Your task to perform on an android device: turn on airplane mode Image 0: 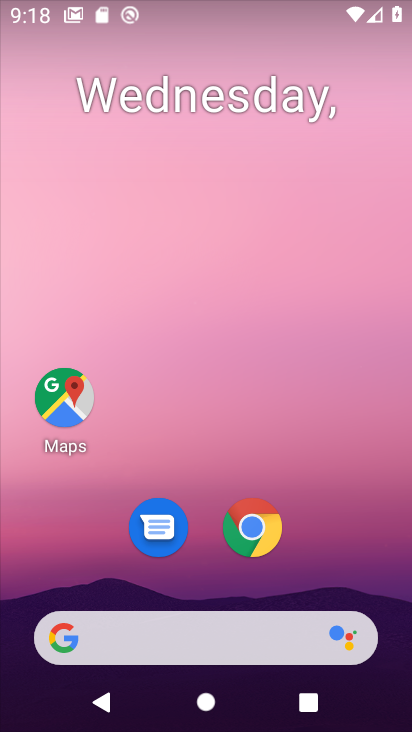
Step 0: press home button
Your task to perform on an android device: turn on airplane mode Image 1: 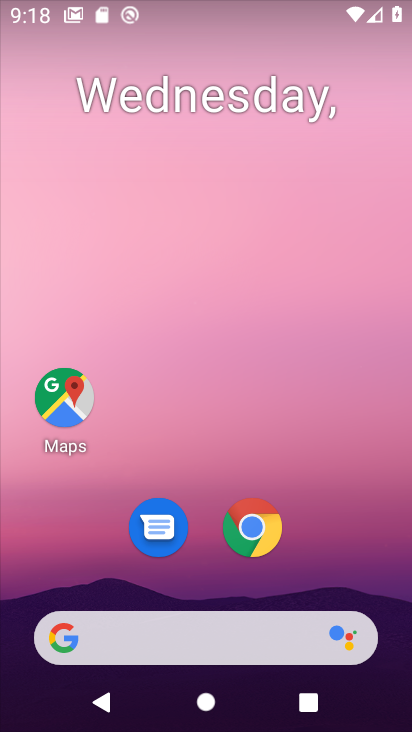
Step 1: drag from (236, 15) to (274, 537)
Your task to perform on an android device: turn on airplane mode Image 2: 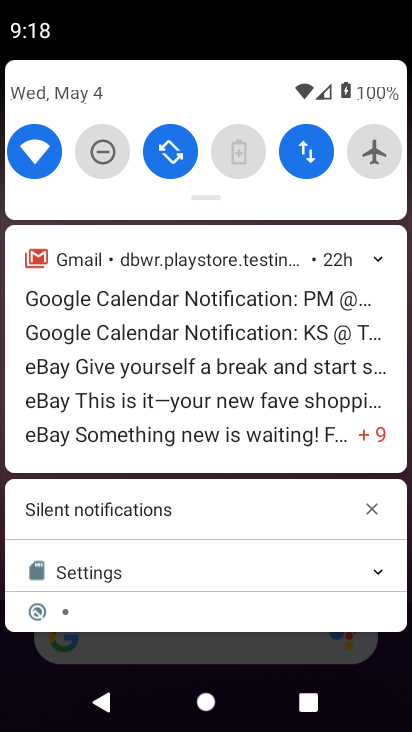
Step 2: drag from (215, 203) to (228, 701)
Your task to perform on an android device: turn on airplane mode Image 3: 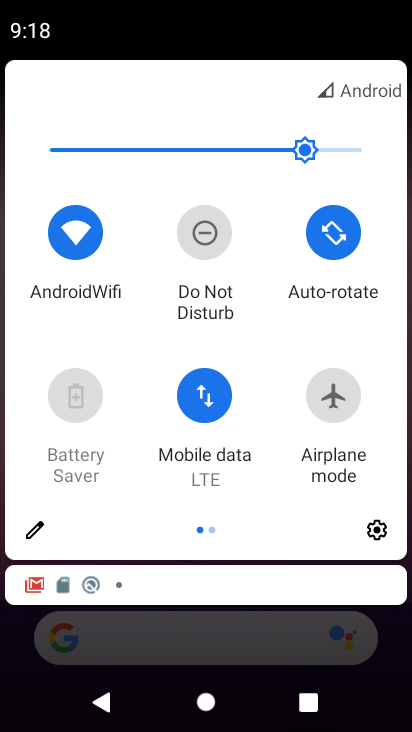
Step 3: click (334, 392)
Your task to perform on an android device: turn on airplane mode Image 4: 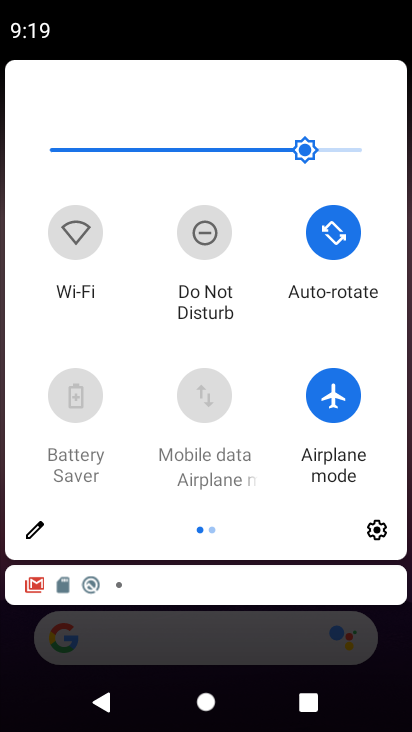
Step 4: task complete